Your task to perform on an android device: Go to Google maps Image 0: 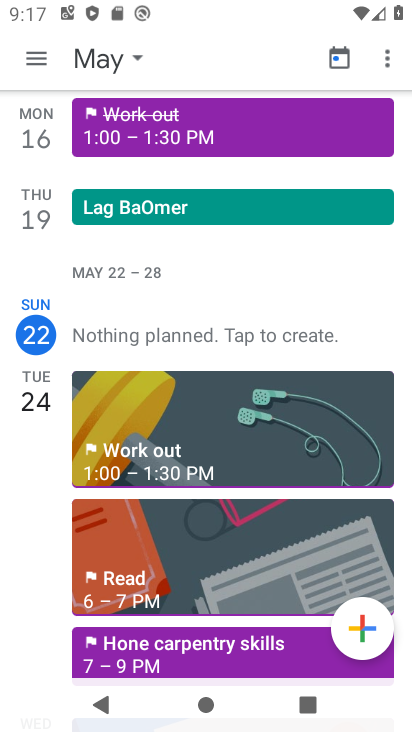
Step 0: press home button
Your task to perform on an android device: Go to Google maps Image 1: 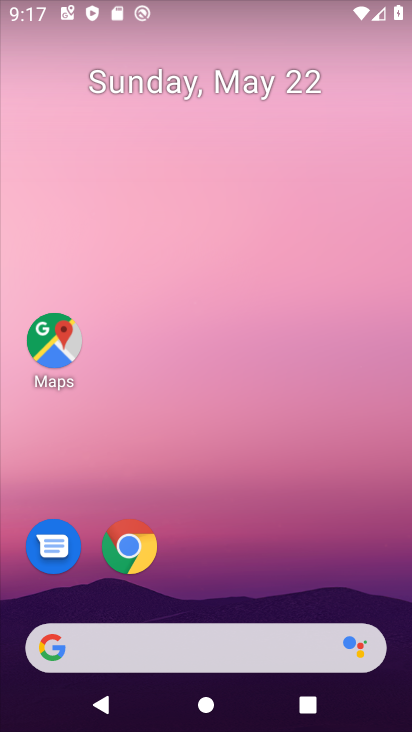
Step 1: click (52, 357)
Your task to perform on an android device: Go to Google maps Image 2: 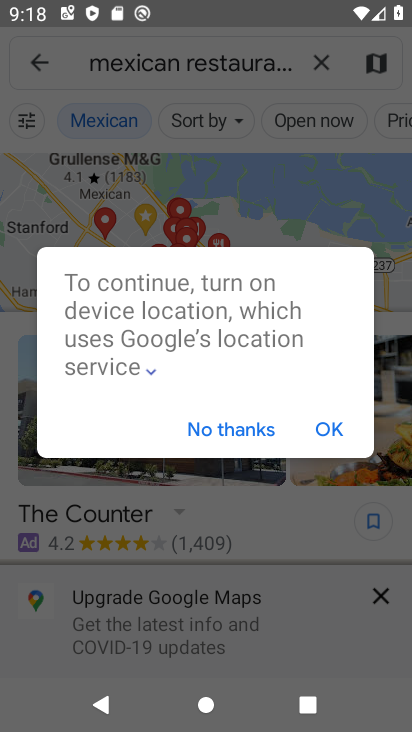
Step 2: click (194, 437)
Your task to perform on an android device: Go to Google maps Image 3: 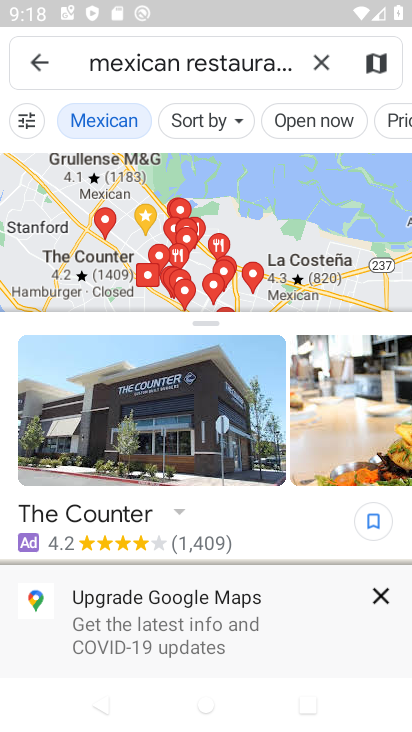
Step 3: task complete